Your task to perform on an android device: Open Google Maps and go to "Timeline" Image 0: 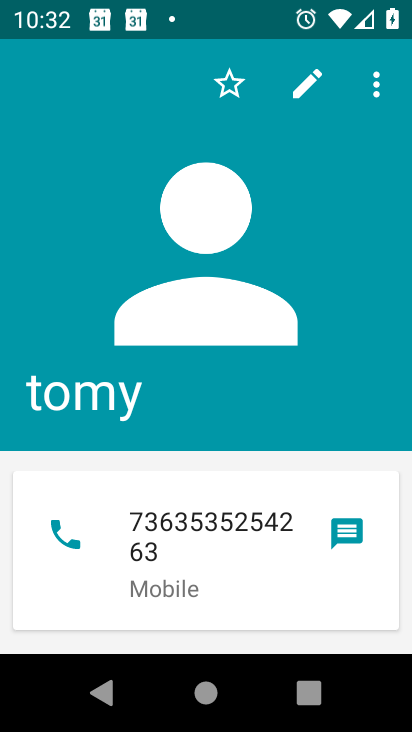
Step 0: press home button
Your task to perform on an android device: Open Google Maps and go to "Timeline" Image 1: 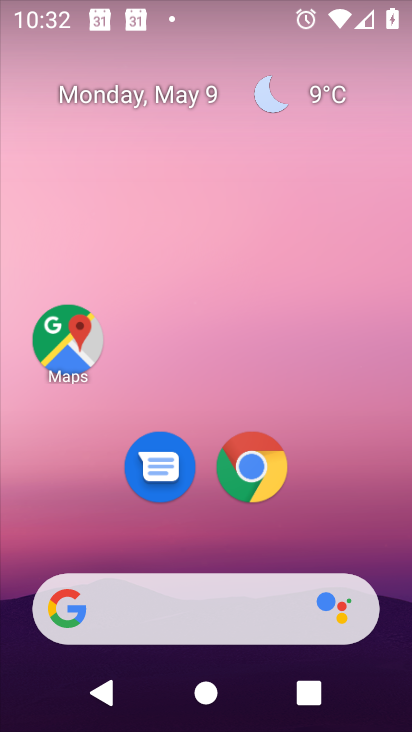
Step 1: click (64, 345)
Your task to perform on an android device: Open Google Maps and go to "Timeline" Image 2: 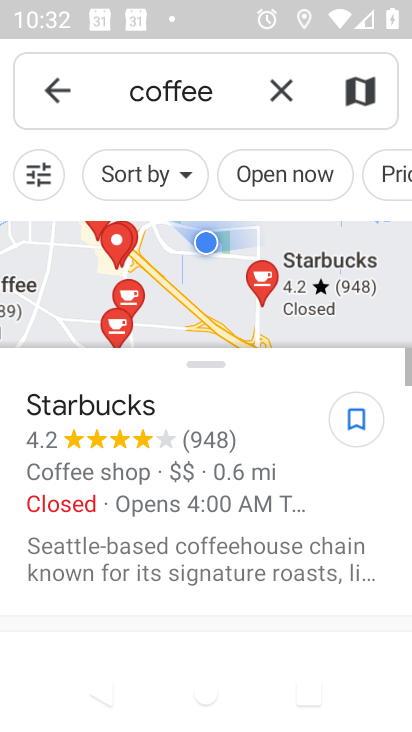
Step 2: click (284, 101)
Your task to perform on an android device: Open Google Maps and go to "Timeline" Image 3: 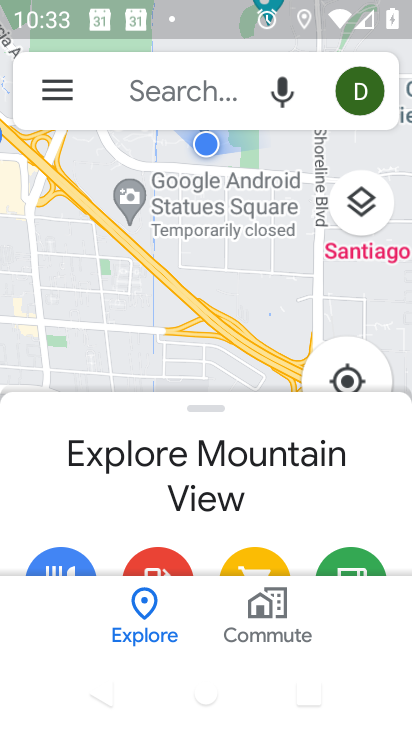
Step 3: click (49, 97)
Your task to perform on an android device: Open Google Maps and go to "Timeline" Image 4: 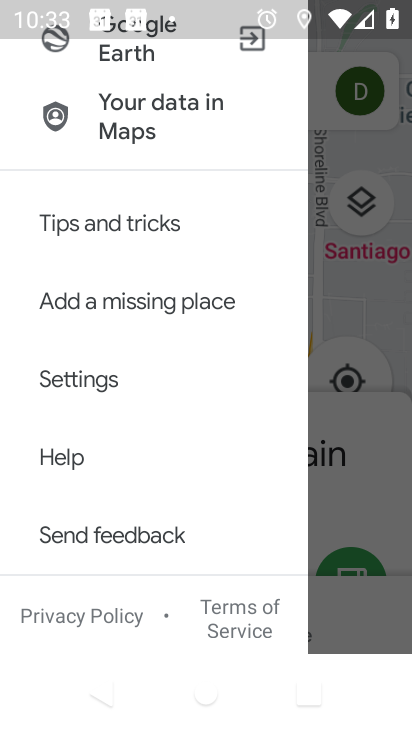
Step 4: drag from (240, 239) to (218, 632)
Your task to perform on an android device: Open Google Maps and go to "Timeline" Image 5: 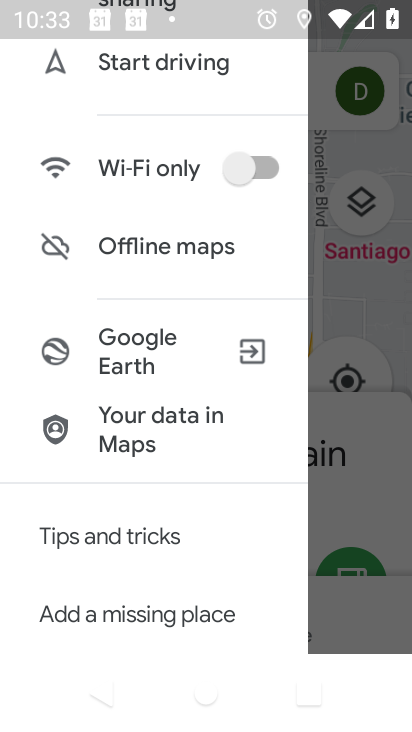
Step 5: drag from (235, 256) to (239, 662)
Your task to perform on an android device: Open Google Maps and go to "Timeline" Image 6: 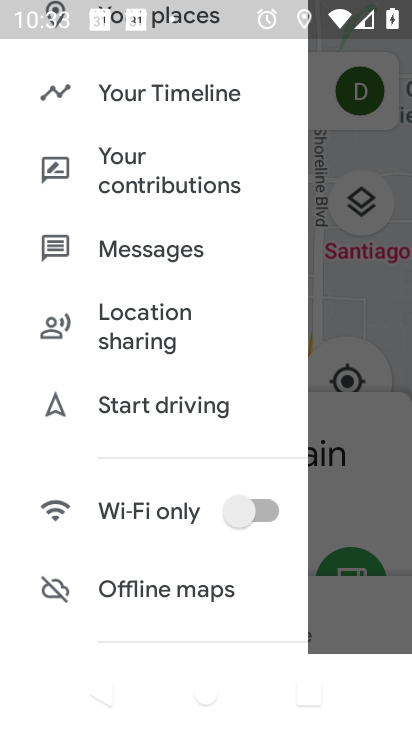
Step 6: drag from (202, 262) to (191, 671)
Your task to perform on an android device: Open Google Maps and go to "Timeline" Image 7: 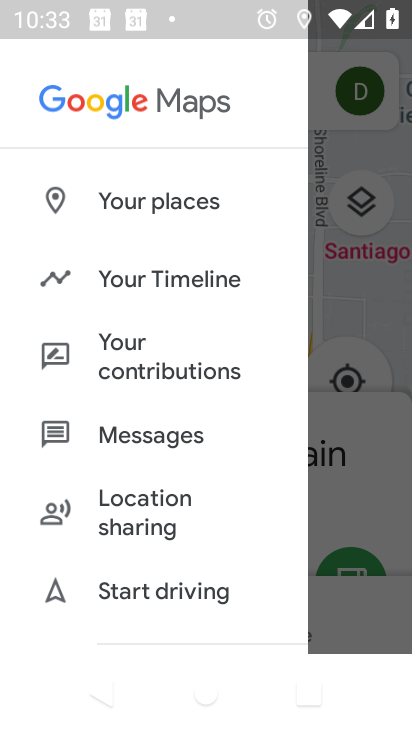
Step 7: click (146, 287)
Your task to perform on an android device: Open Google Maps and go to "Timeline" Image 8: 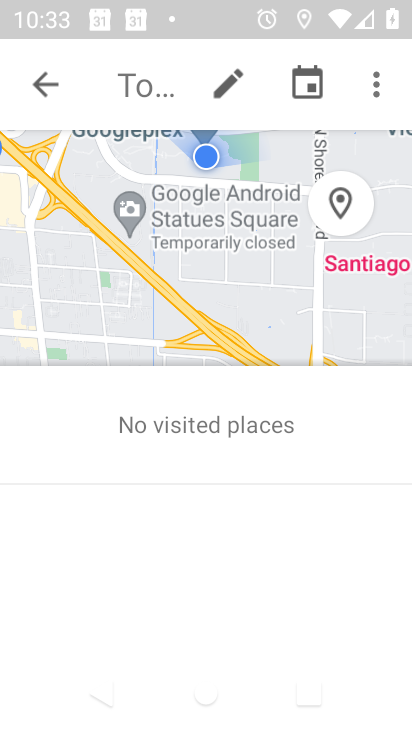
Step 8: task complete